Your task to perform on an android device: Go to internet settings Image 0: 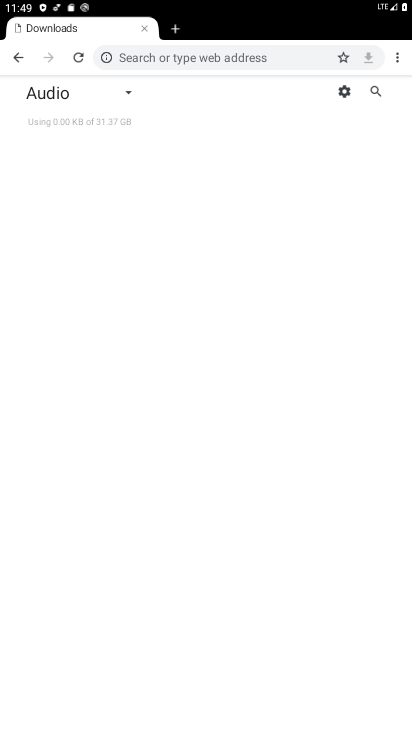
Step 0: press home button
Your task to perform on an android device: Go to internet settings Image 1: 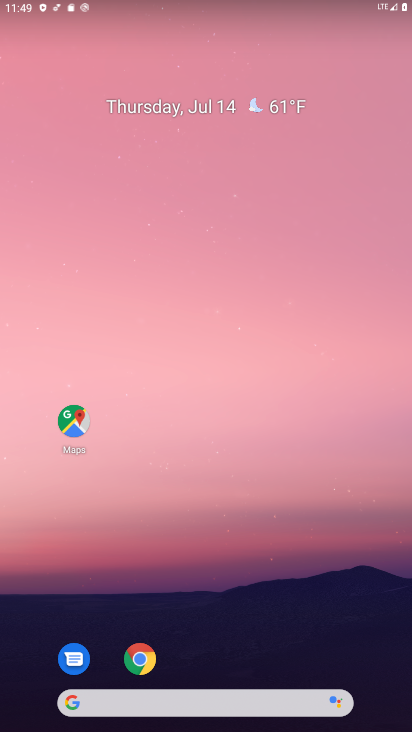
Step 1: drag from (175, 700) to (149, 269)
Your task to perform on an android device: Go to internet settings Image 2: 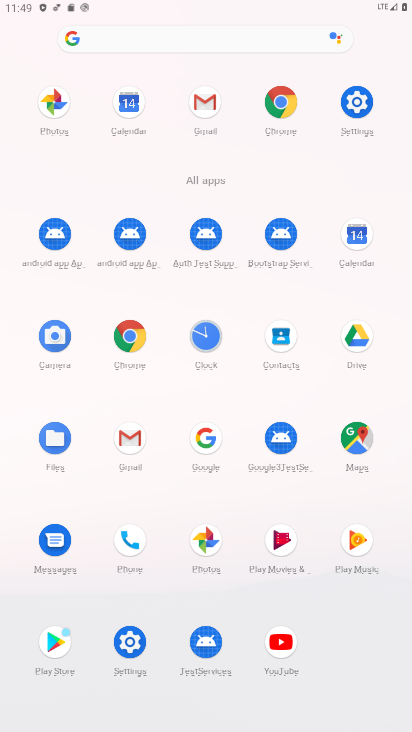
Step 2: click (357, 101)
Your task to perform on an android device: Go to internet settings Image 3: 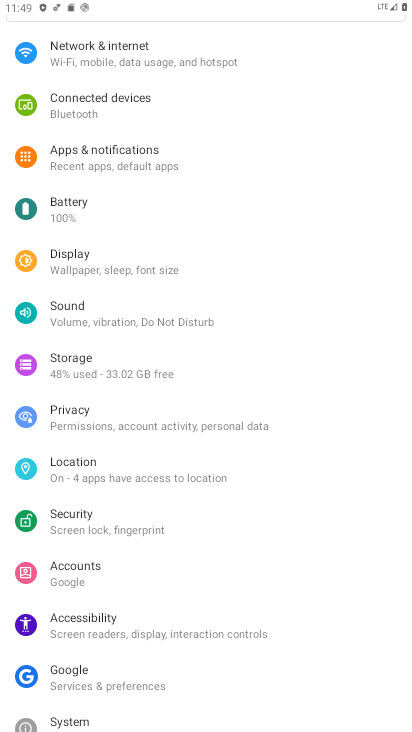
Step 3: click (108, 62)
Your task to perform on an android device: Go to internet settings Image 4: 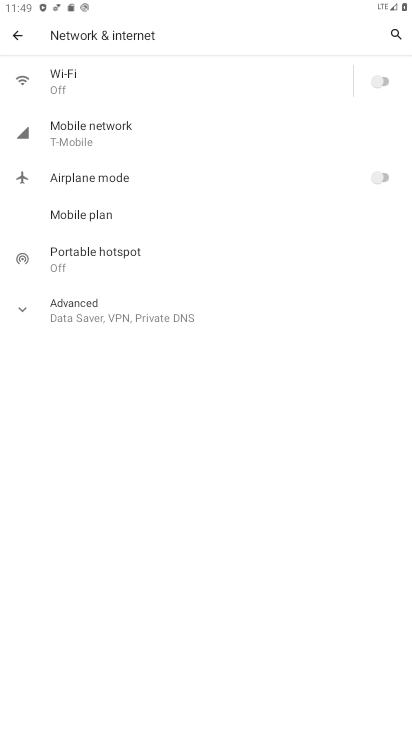
Step 4: task complete